Your task to perform on an android device: Open the stopwatch Image 0: 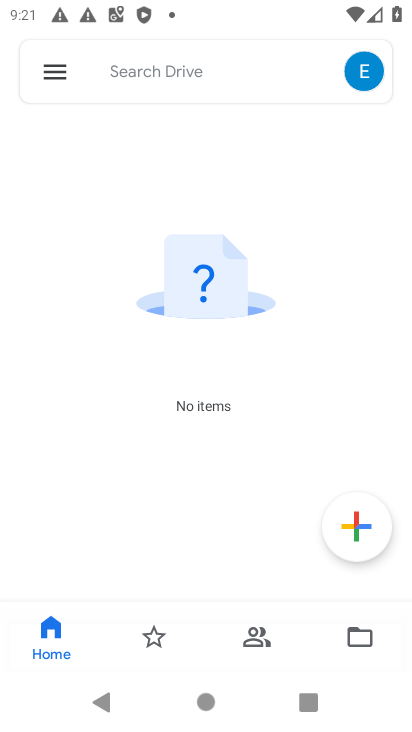
Step 0: press back button
Your task to perform on an android device: Open the stopwatch Image 1: 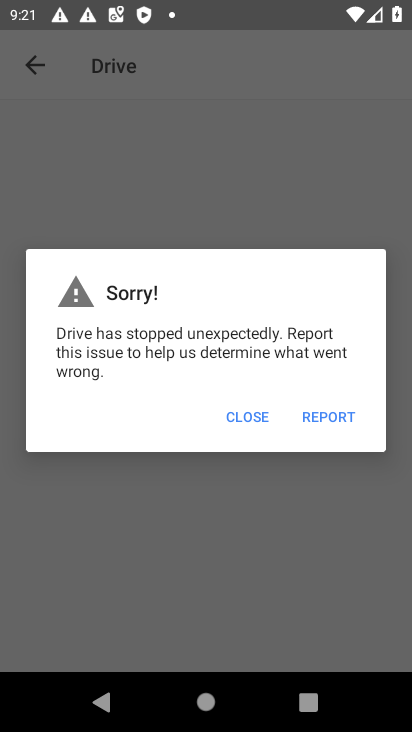
Step 1: press home button
Your task to perform on an android device: Open the stopwatch Image 2: 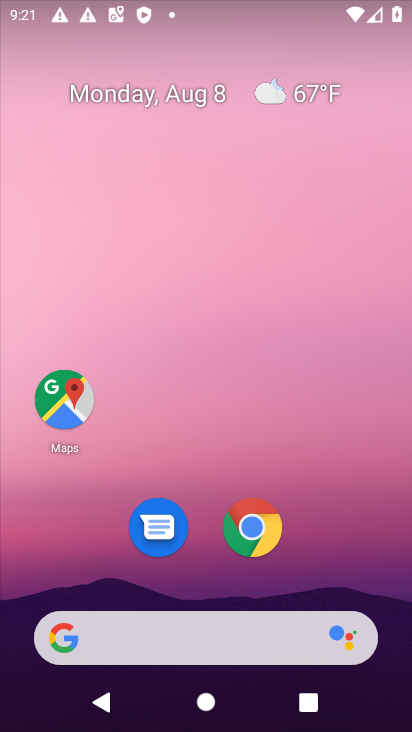
Step 2: drag from (368, 659) to (328, 68)
Your task to perform on an android device: Open the stopwatch Image 3: 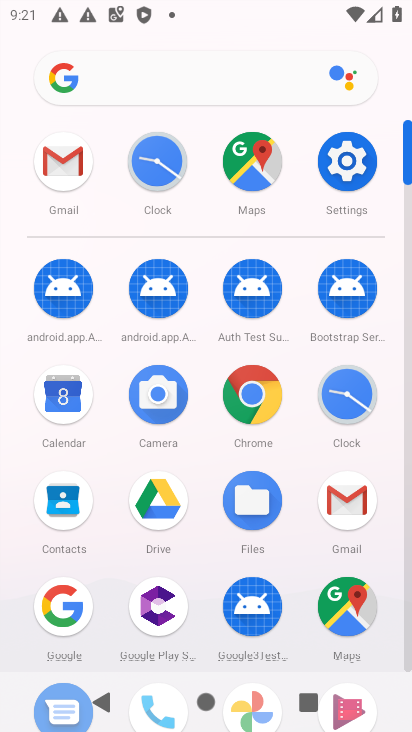
Step 3: click (340, 392)
Your task to perform on an android device: Open the stopwatch Image 4: 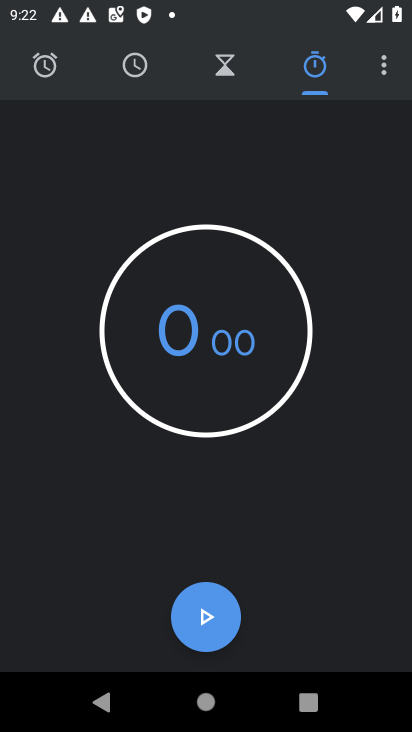
Step 4: task complete